Your task to perform on an android device: open wifi settings Image 0: 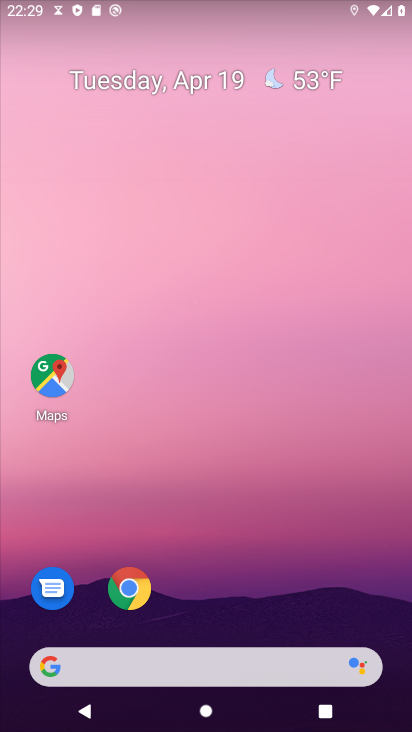
Step 0: drag from (225, 642) to (268, 134)
Your task to perform on an android device: open wifi settings Image 1: 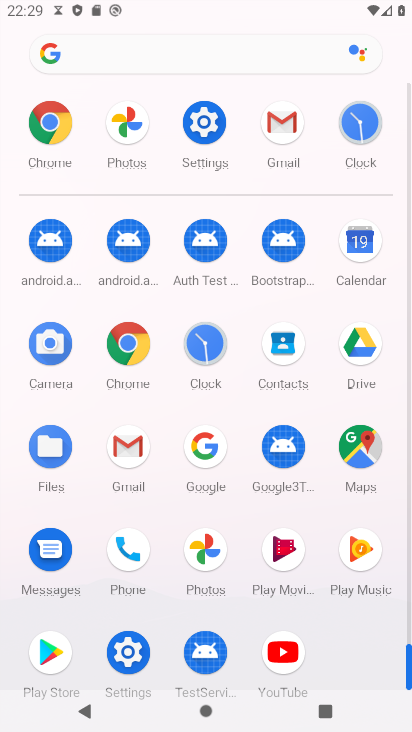
Step 1: click (202, 123)
Your task to perform on an android device: open wifi settings Image 2: 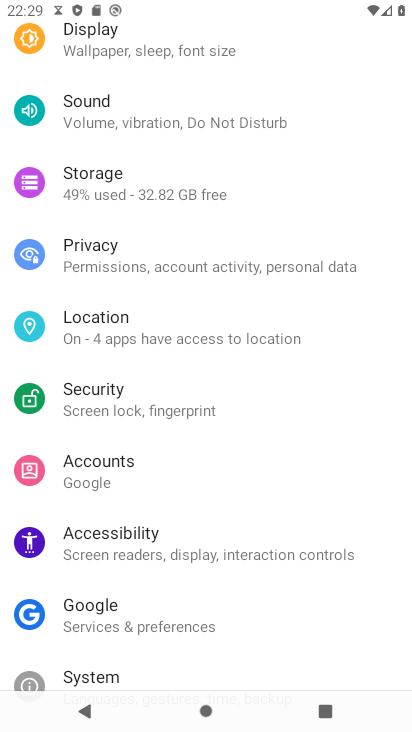
Step 2: drag from (222, 235) to (226, 371)
Your task to perform on an android device: open wifi settings Image 3: 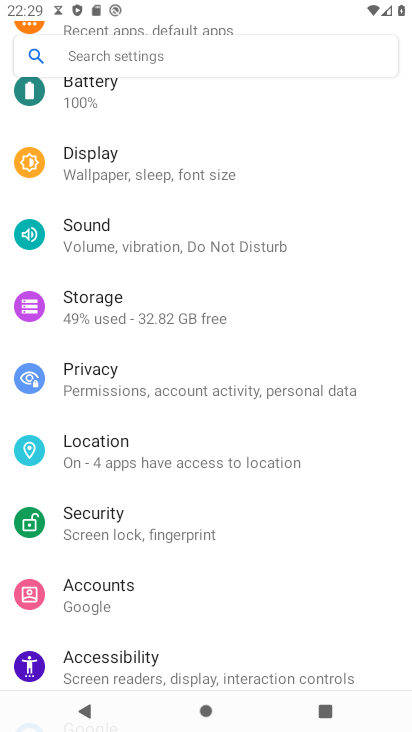
Step 3: drag from (219, 164) to (241, 343)
Your task to perform on an android device: open wifi settings Image 4: 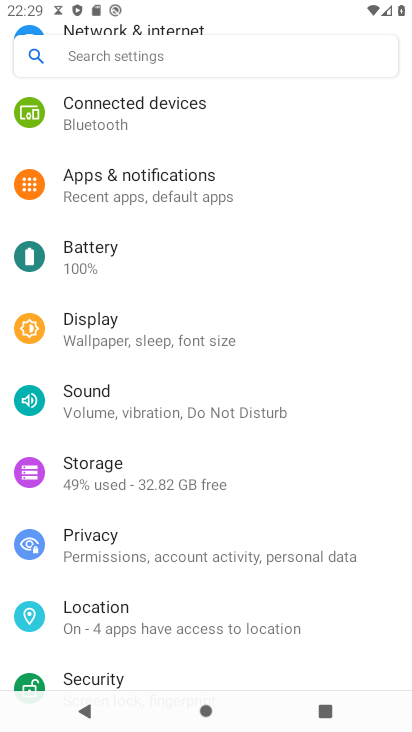
Step 4: drag from (209, 232) to (222, 365)
Your task to perform on an android device: open wifi settings Image 5: 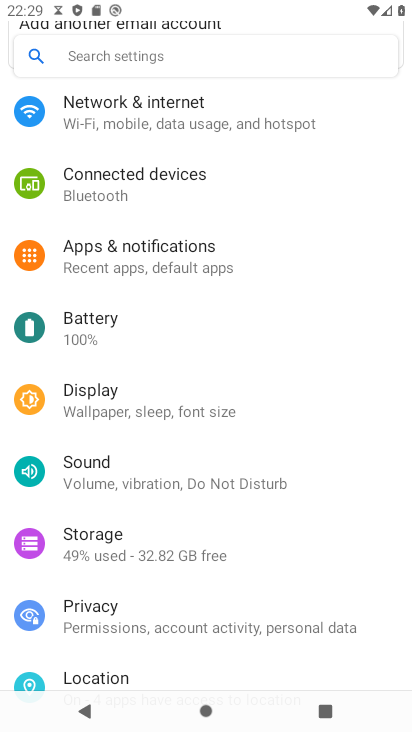
Step 5: drag from (210, 211) to (230, 367)
Your task to perform on an android device: open wifi settings Image 6: 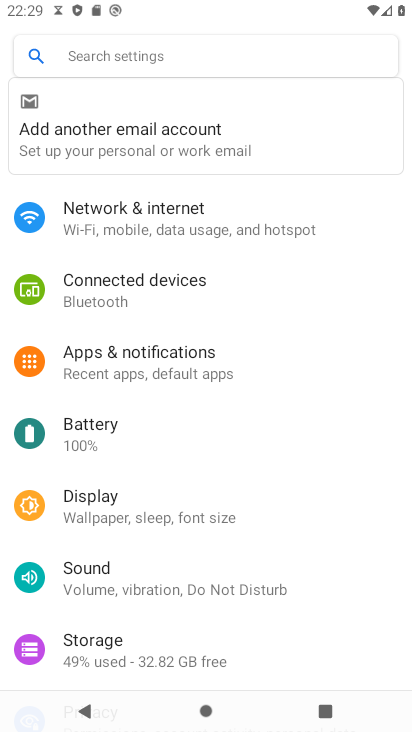
Step 6: click (165, 213)
Your task to perform on an android device: open wifi settings Image 7: 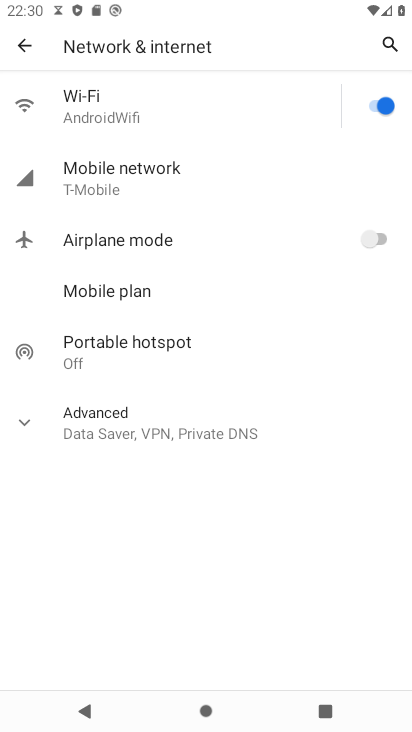
Step 7: click (104, 118)
Your task to perform on an android device: open wifi settings Image 8: 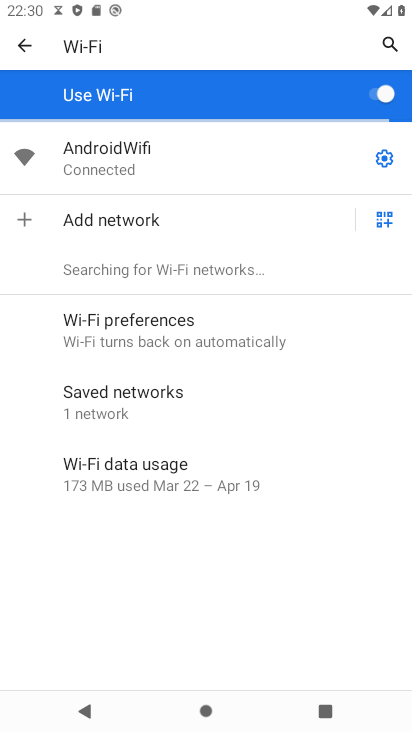
Step 8: click (383, 161)
Your task to perform on an android device: open wifi settings Image 9: 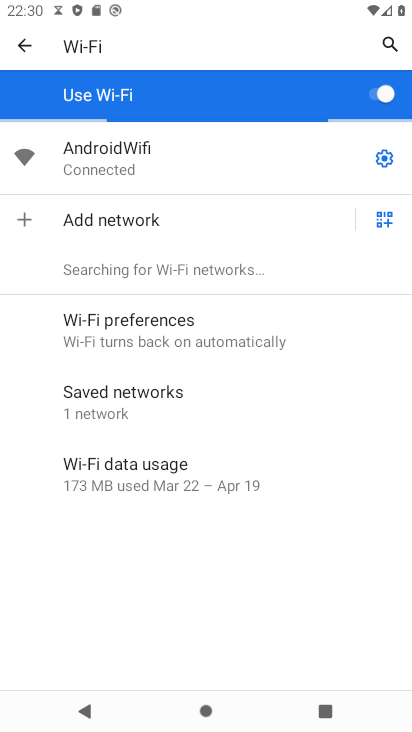
Step 9: click (385, 159)
Your task to perform on an android device: open wifi settings Image 10: 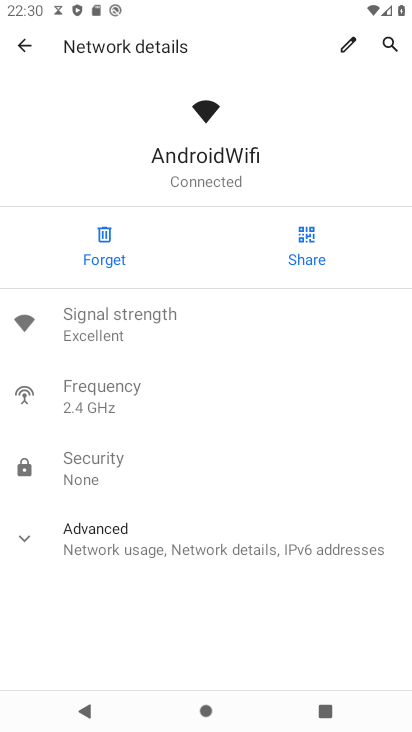
Step 10: task complete